Your task to perform on an android device: What is the news today? Image 0: 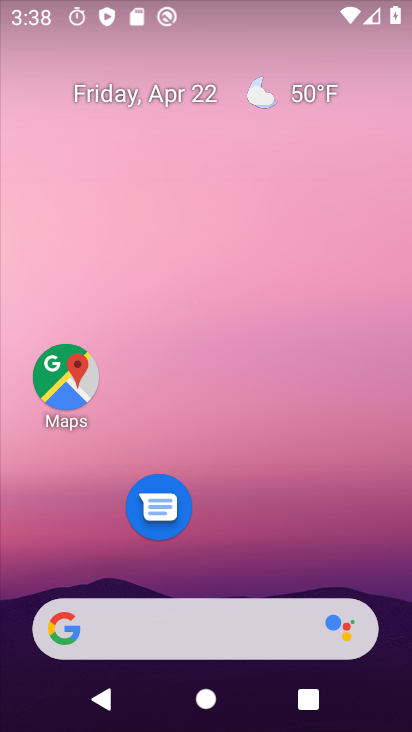
Step 0: click (203, 626)
Your task to perform on an android device: What is the news today? Image 1: 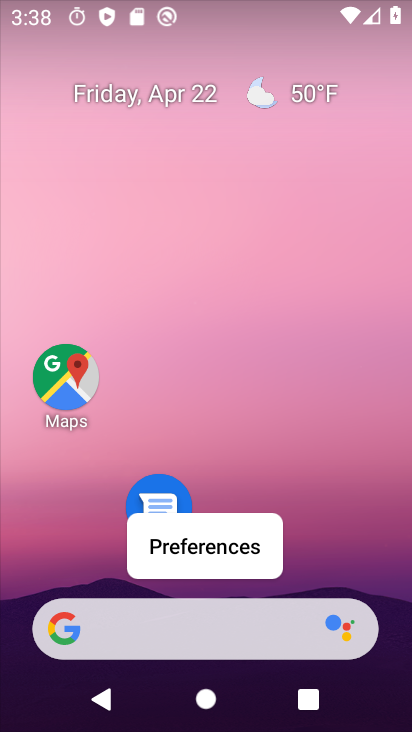
Step 1: click (197, 637)
Your task to perform on an android device: What is the news today? Image 2: 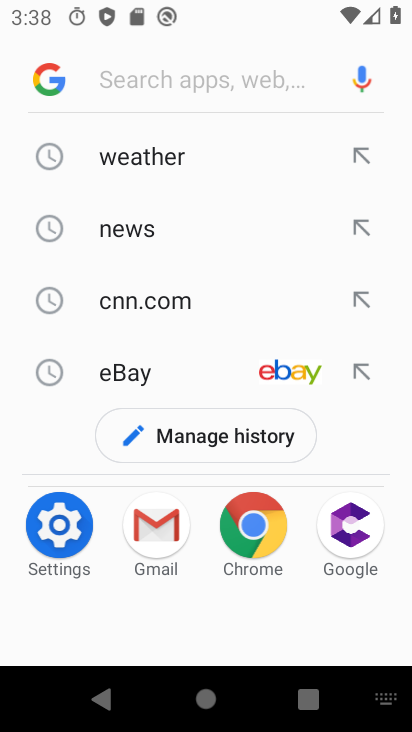
Step 2: click (108, 226)
Your task to perform on an android device: What is the news today? Image 3: 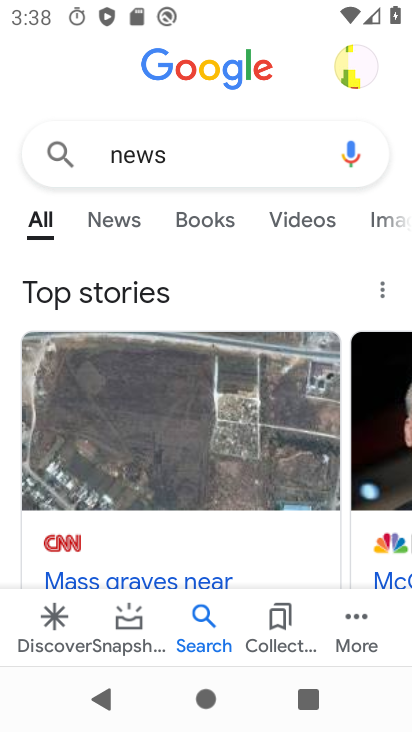
Step 3: task complete